Your task to perform on an android device: Is it going to rain tomorrow? Image 0: 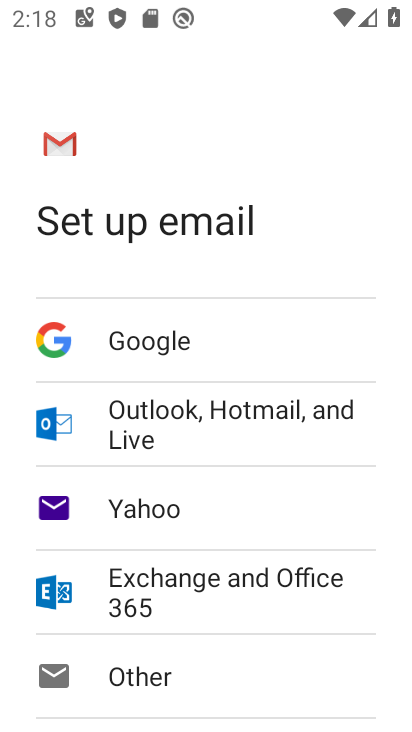
Step 0: press home button
Your task to perform on an android device: Is it going to rain tomorrow? Image 1: 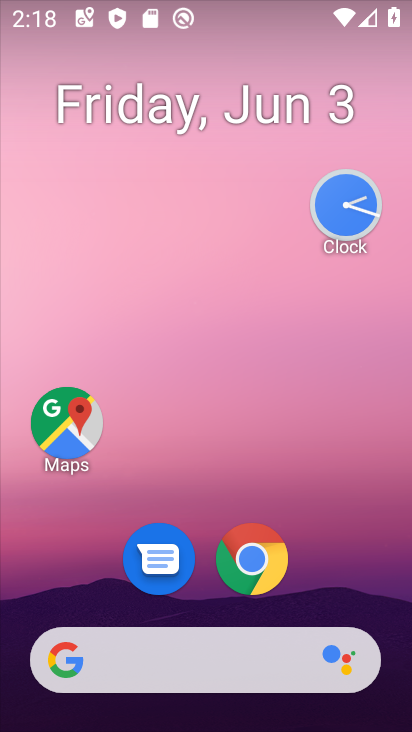
Step 1: drag from (15, 324) to (411, 393)
Your task to perform on an android device: Is it going to rain tomorrow? Image 2: 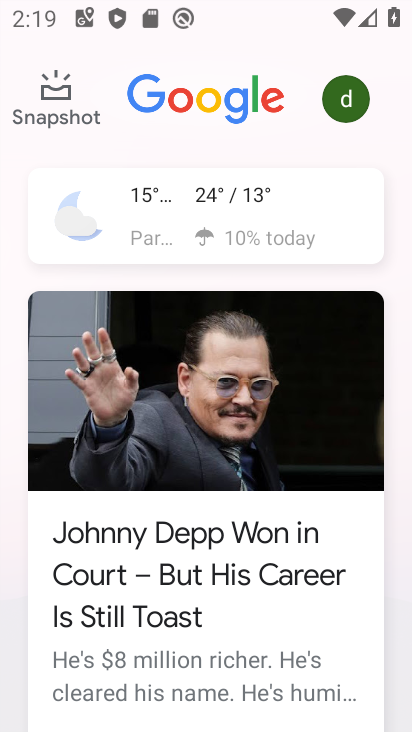
Step 2: click (218, 220)
Your task to perform on an android device: Is it going to rain tomorrow? Image 3: 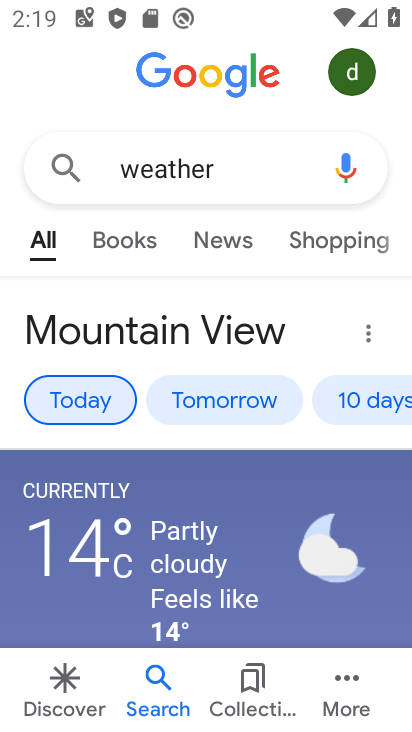
Step 3: click (230, 391)
Your task to perform on an android device: Is it going to rain tomorrow? Image 4: 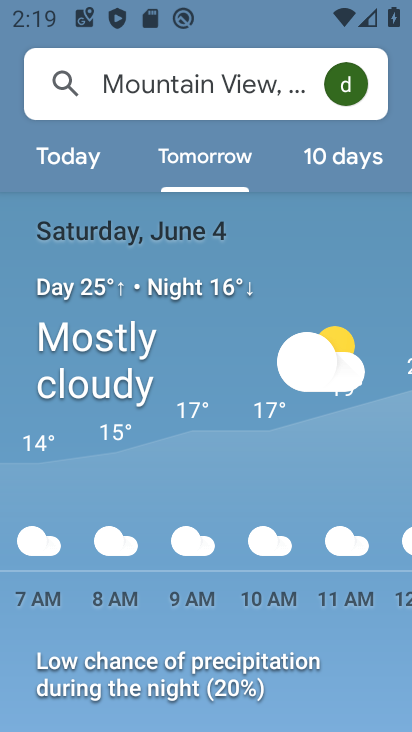
Step 4: task complete